Your task to perform on an android device: Open privacy settings Image 0: 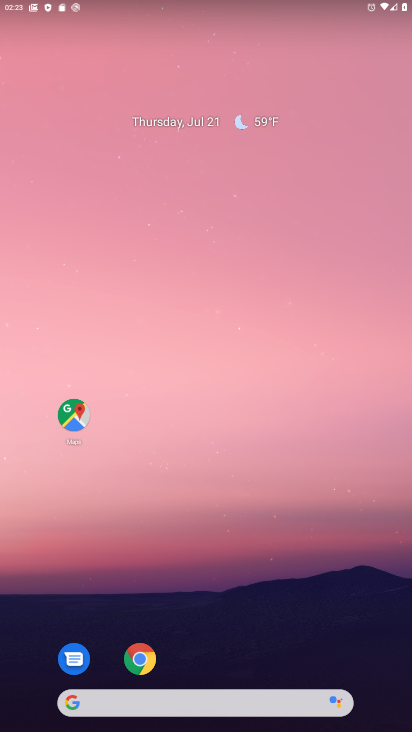
Step 0: drag from (288, 621) to (250, 85)
Your task to perform on an android device: Open privacy settings Image 1: 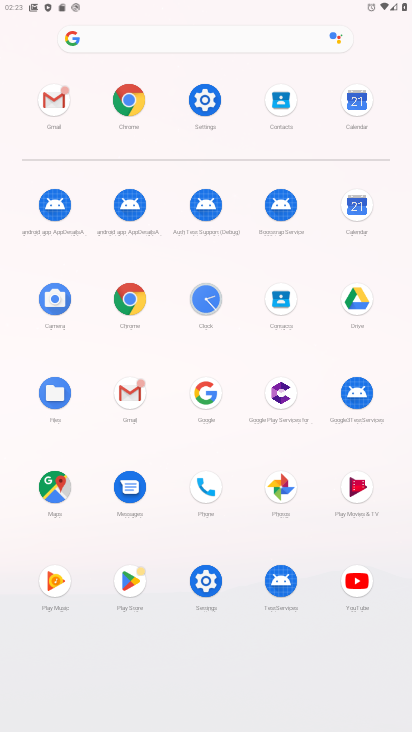
Step 1: click (206, 95)
Your task to perform on an android device: Open privacy settings Image 2: 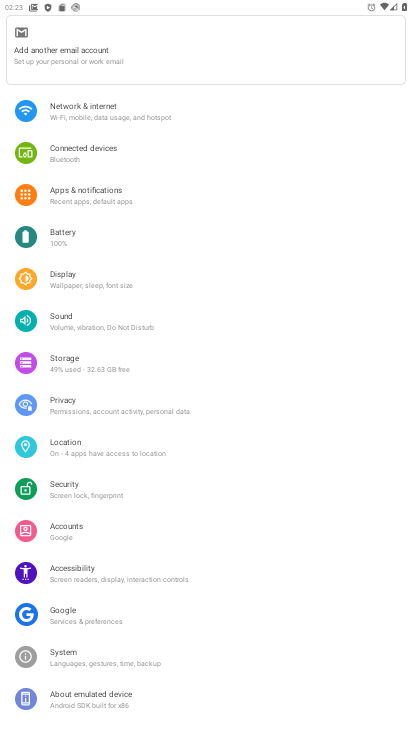
Step 2: drag from (176, 641) to (234, 173)
Your task to perform on an android device: Open privacy settings Image 3: 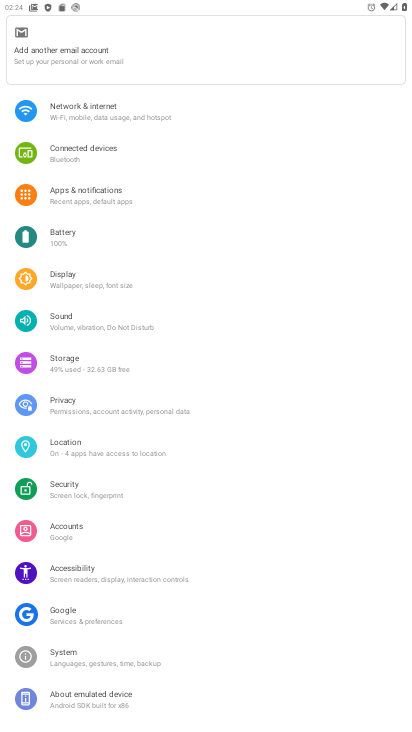
Step 3: click (89, 398)
Your task to perform on an android device: Open privacy settings Image 4: 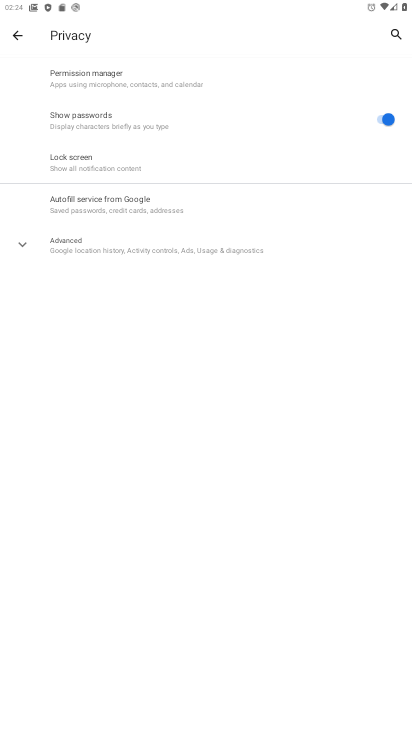
Step 4: task complete